Your task to perform on an android device: visit the assistant section in the google photos Image 0: 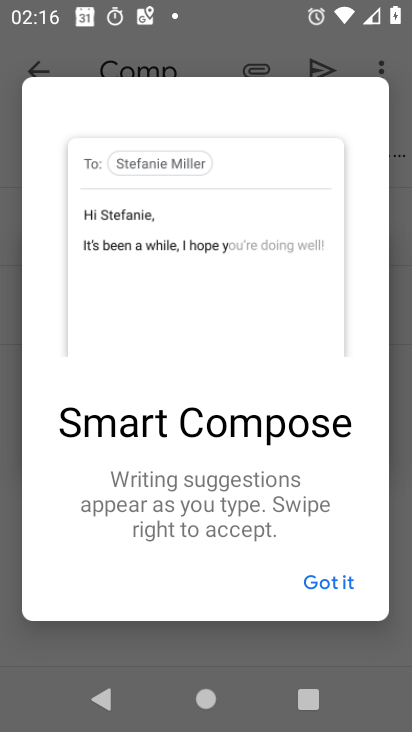
Step 0: press home button
Your task to perform on an android device: visit the assistant section in the google photos Image 1: 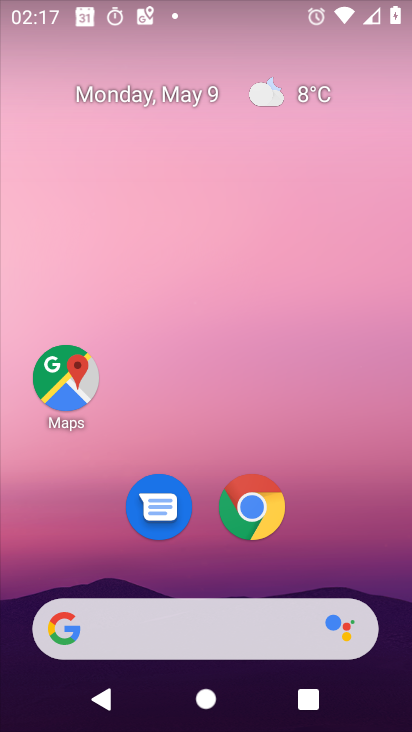
Step 1: drag from (204, 724) to (185, 102)
Your task to perform on an android device: visit the assistant section in the google photos Image 2: 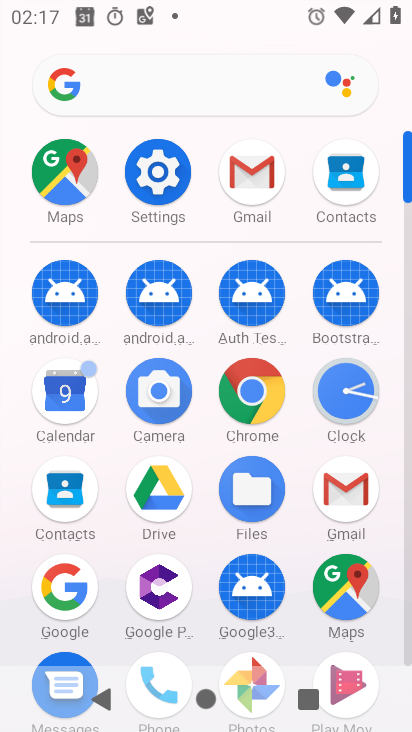
Step 2: drag from (207, 644) to (164, 205)
Your task to perform on an android device: visit the assistant section in the google photos Image 3: 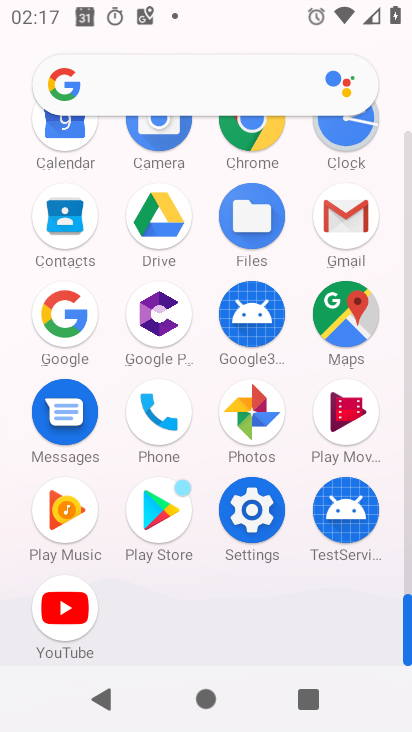
Step 3: click (247, 413)
Your task to perform on an android device: visit the assistant section in the google photos Image 4: 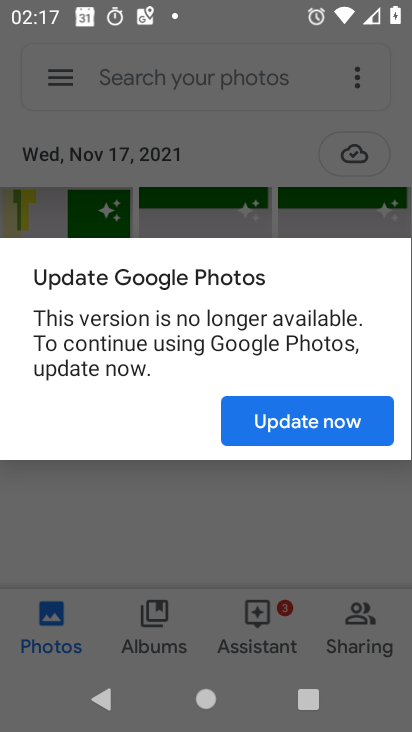
Step 4: task complete